Your task to perform on an android device: turn on sleep mode Image 0: 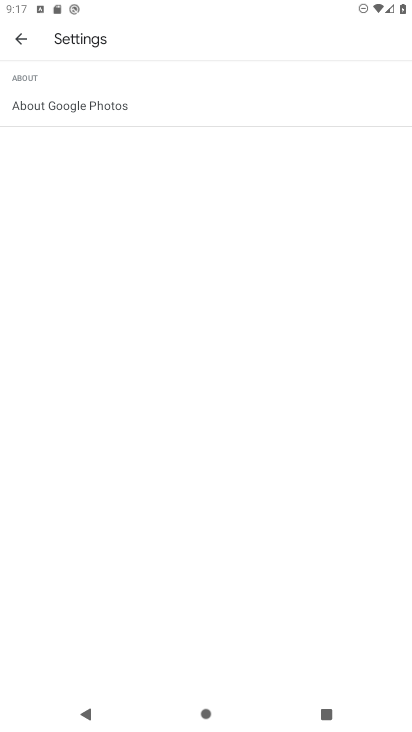
Step 0: task impossible